Your task to perform on an android device: What's the weather going to be tomorrow? Image 0: 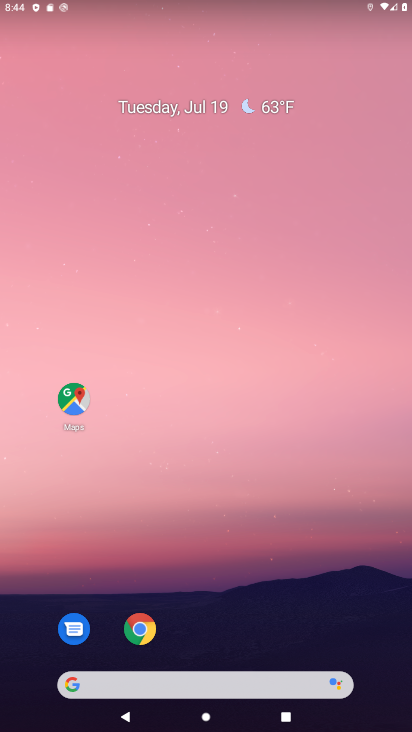
Step 0: press home button
Your task to perform on an android device: What's the weather going to be tomorrow? Image 1: 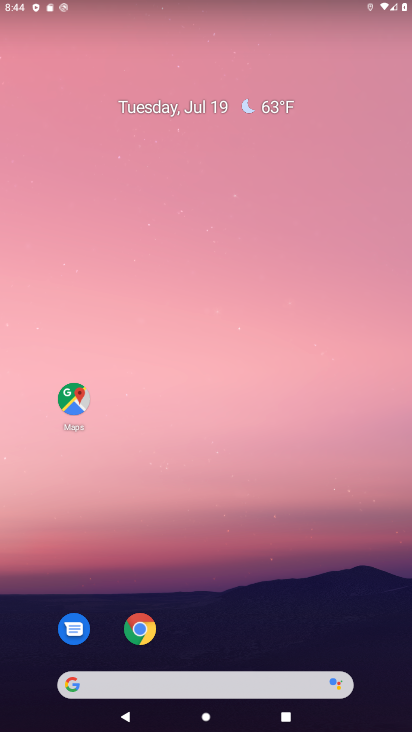
Step 1: drag from (218, 649) to (270, 30)
Your task to perform on an android device: What's the weather going to be tomorrow? Image 2: 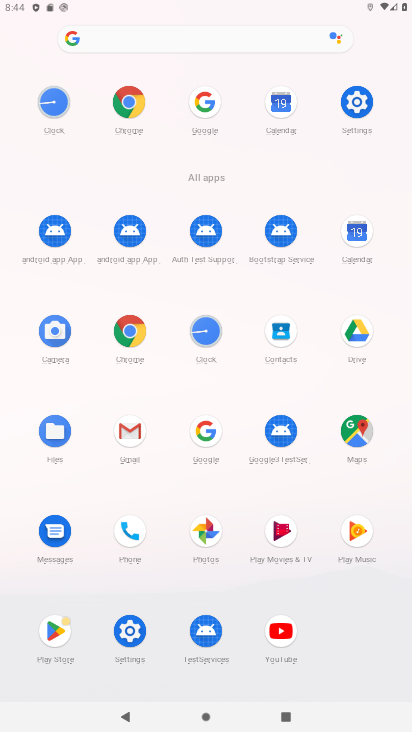
Step 2: press home button
Your task to perform on an android device: What's the weather going to be tomorrow? Image 3: 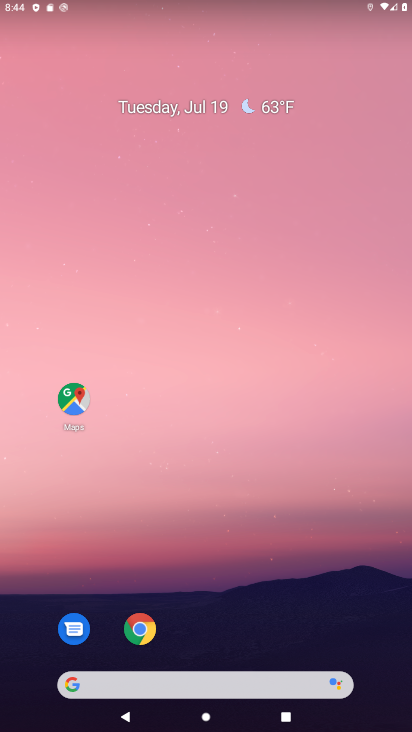
Step 3: click (262, 107)
Your task to perform on an android device: What's the weather going to be tomorrow? Image 4: 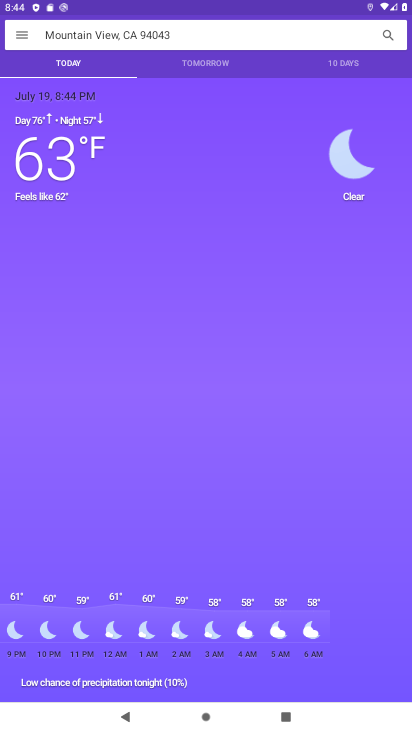
Step 4: click (203, 68)
Your task to perform on an android device: What's the weather going to be tomorrow? Image 5: 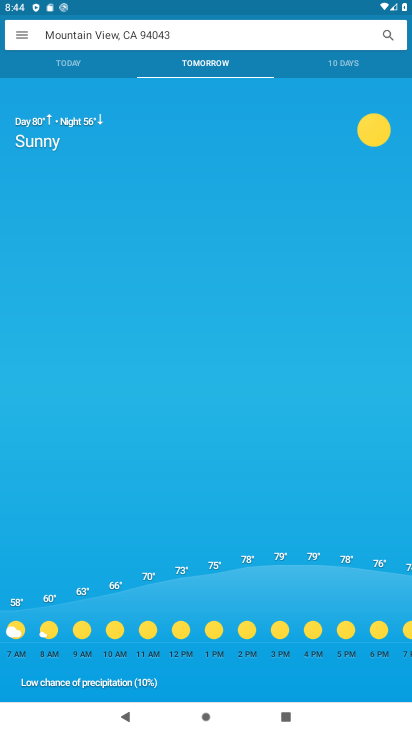
Step 5: task complete